Your task to perform on an android device: turn on location history Image 0: 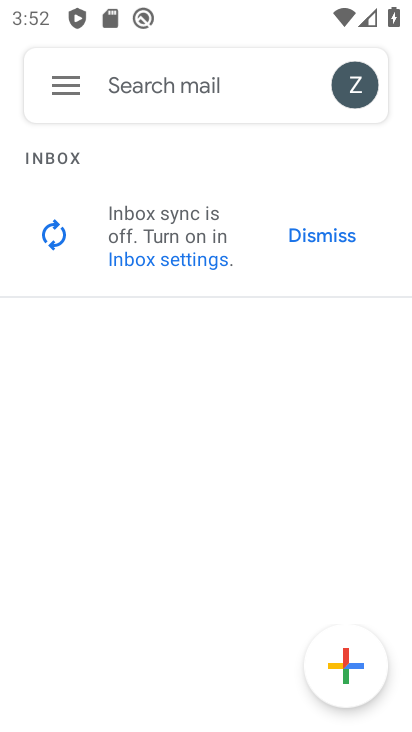
Step 0: press home button
Your task to perform on an android device: turn on location history Image 1: 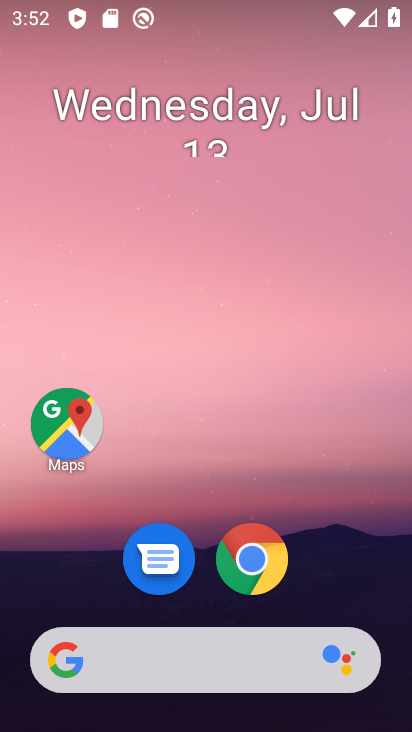
Step 1: drag from (241, 606) to (282, 280)
Your task to perform on an android device: turn on location history Image 2: 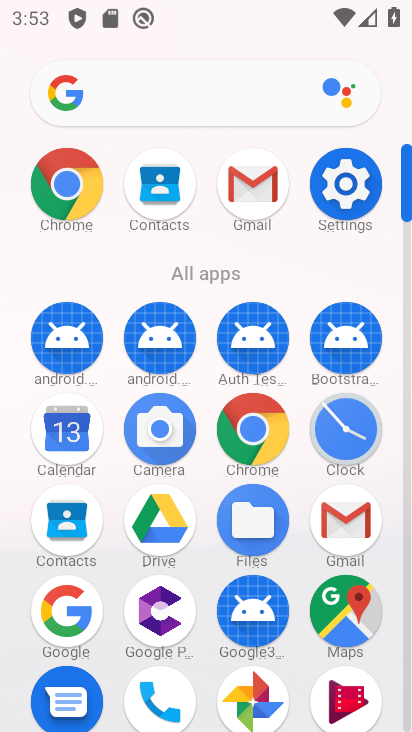
Step 2: click (337, 200)
Your task to perform on an android device: turn on location history Image 3: 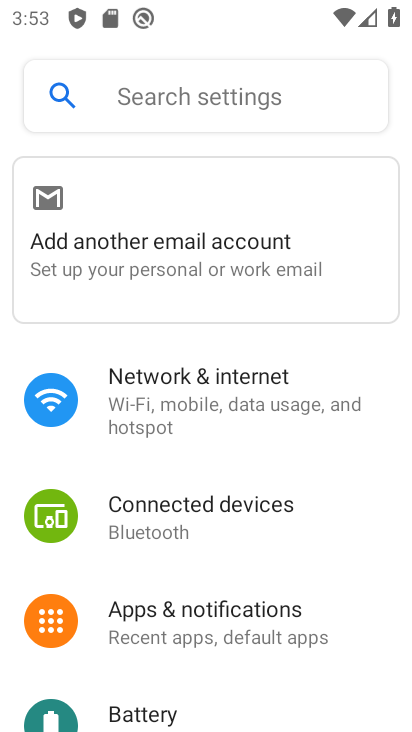
Step 3: drag from (196, 561) to (216, 194)
Your task to perform on an android device: turn on location history Image 4: 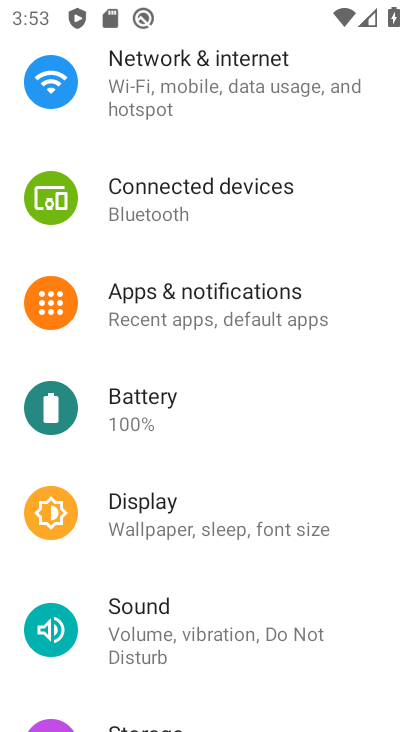
Step 4: drag from (212, 573) to (265, 283)
Your task to perform on an android device: turn on location history Image 5: 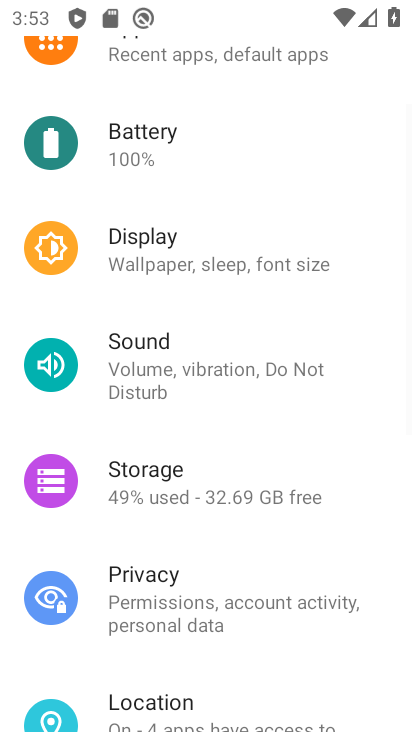
Step 5: click (218, 697)
Your task to perform on an android device: turn on location history Image 6: 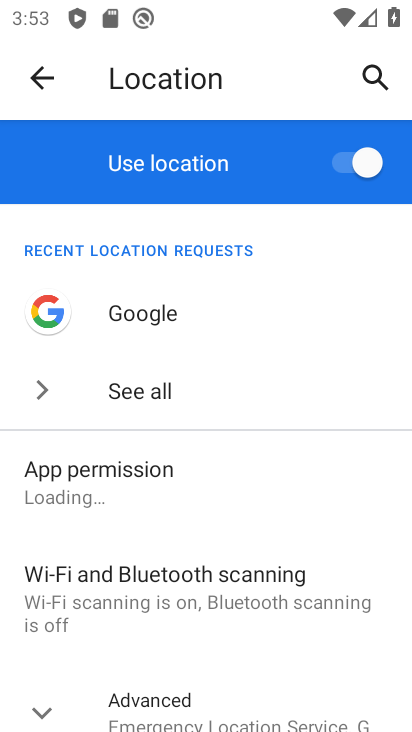
Step 6: drag from (229, 630) to (230, 367)
Your task to perform on an android device: turn on location history Image 7: 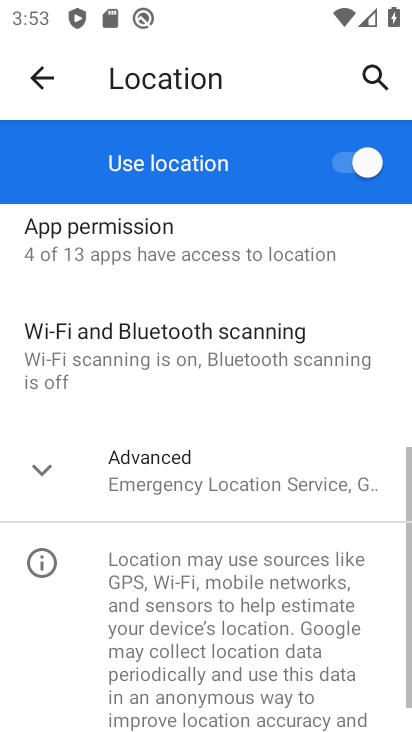
Step 7: click (225, 464)
Your task to perform on an android device: turn on location history Image 8: 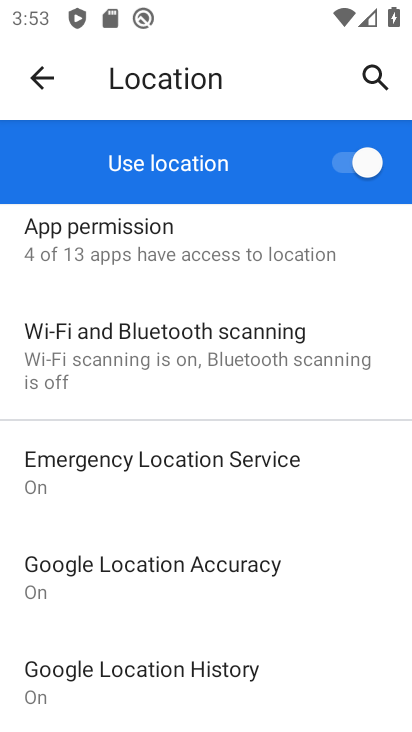
Step 8: click (185, 692)
Your task to perform on an android device: turn on location history Image 9: 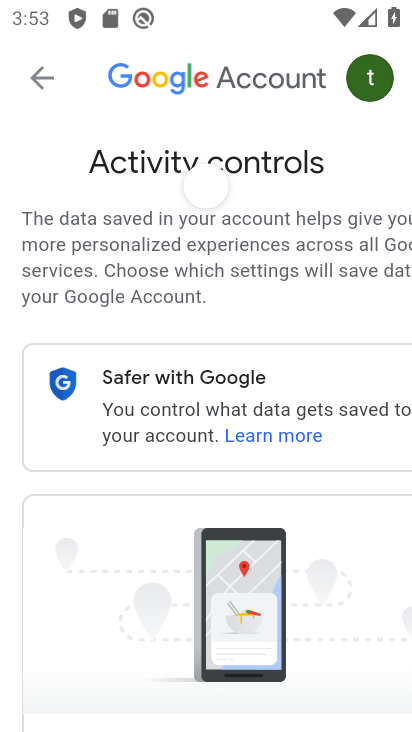
Step 9: task complete